Your task to perform on an android device: toggle wifi Image 0: 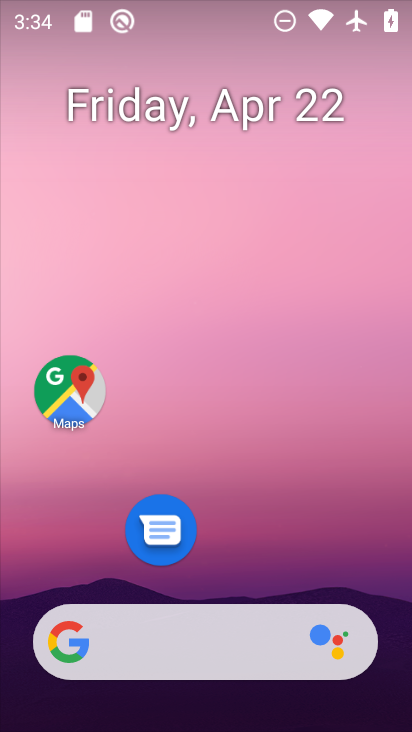
Step 0: drag from (257, 578) to (246, 28)
Your task to perform on an android device: toggle wifi Image 1: 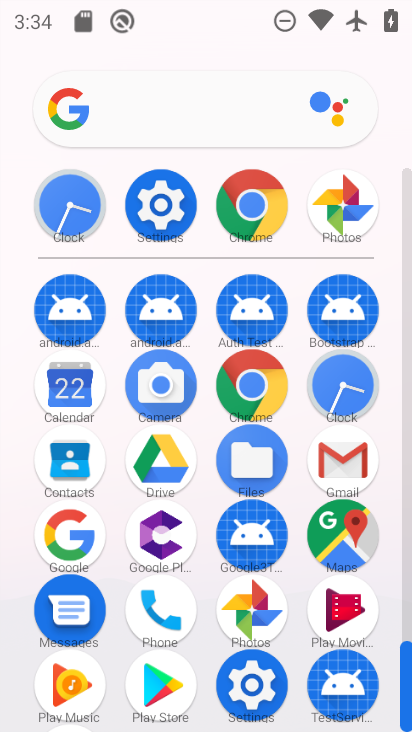
Step 1: click (169, 200)
Your task to perform on an android device: toggle wifi Image 2: 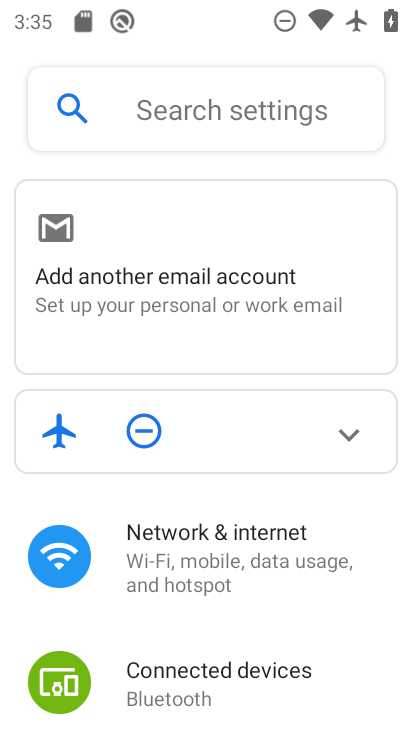
Step 2: click (209, 536)
Your task to perform on an android device: toggle wifi Image 3: 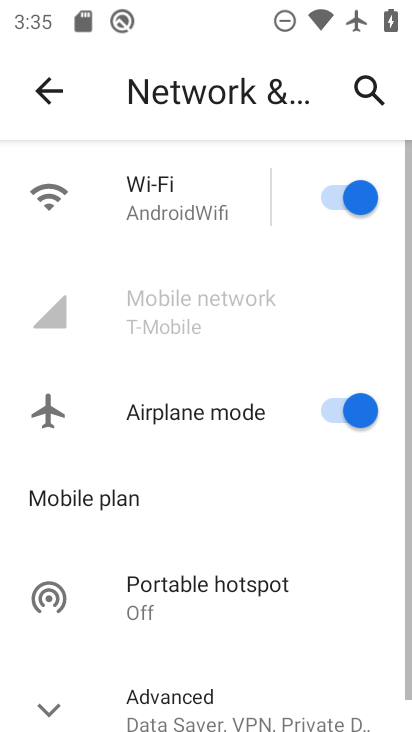
Step 3: click (362, 192)
Your task to perform on an android device: toggle wifi Image 4: 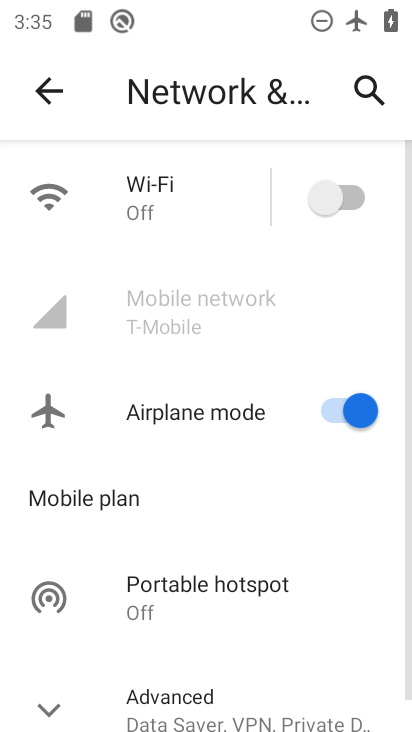
Step 4: task complete